Your task to perform on an android device: open app "Google Sheets" Image 0: 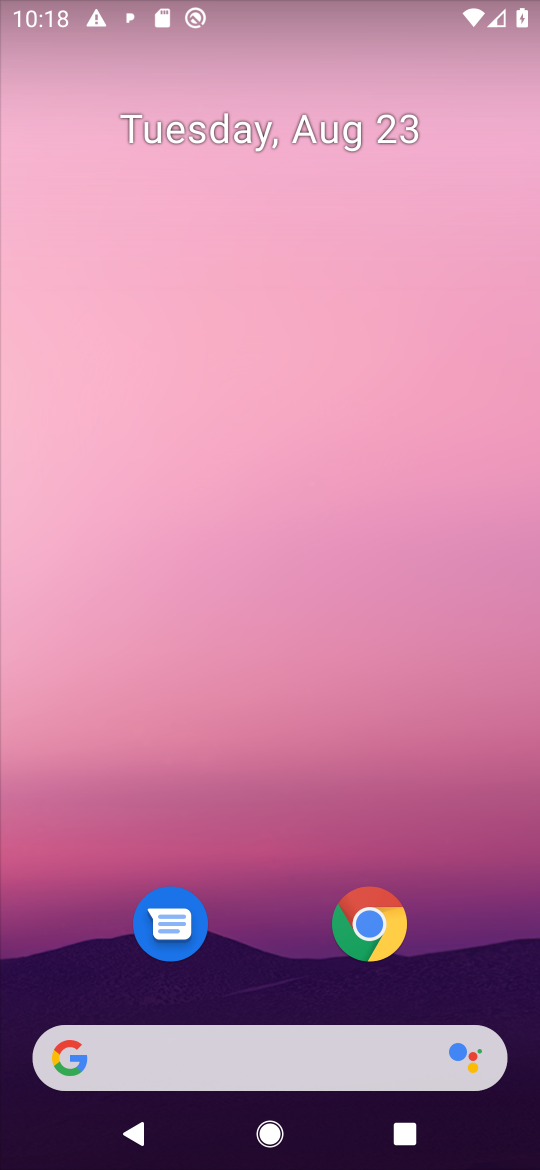
Step 0: press home button
Your task to perform on an android device: open app "Google Sheets" Image 1: 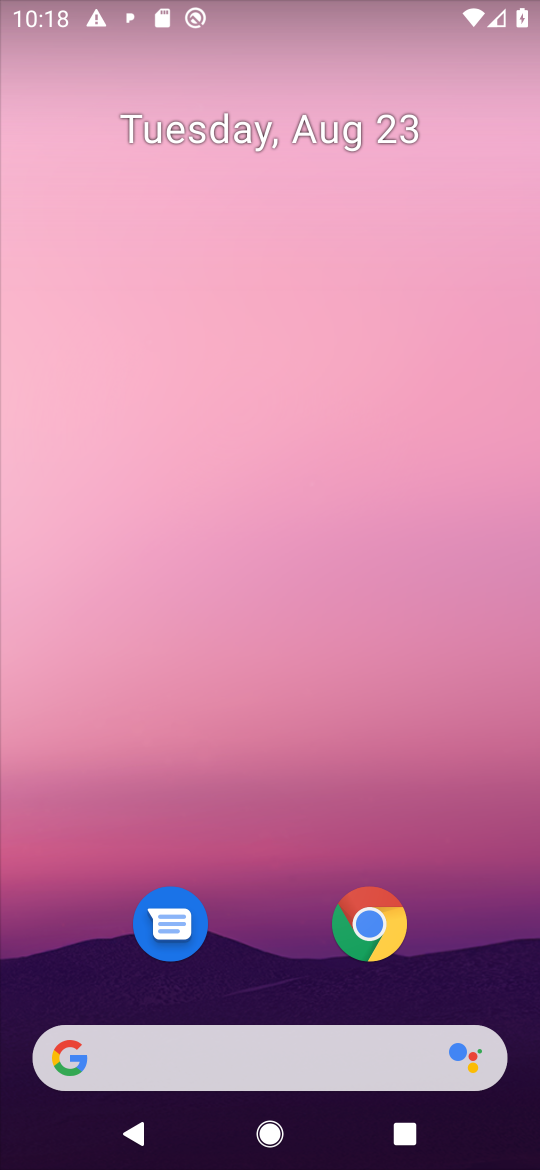
Step 1: drag from (502, 966) to (477, 120)
Your task to perform on an android device: open app "Google Sheets" Image 2: 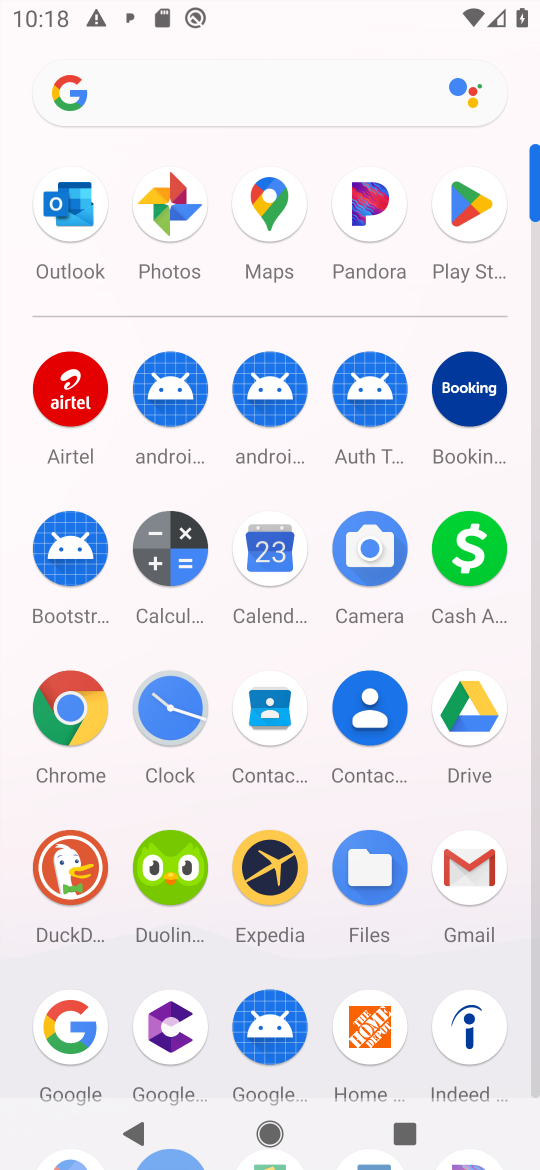
Step 2: click (471, 217)
Your task to perform on an android device: open app "Google Sheets" Image 3: 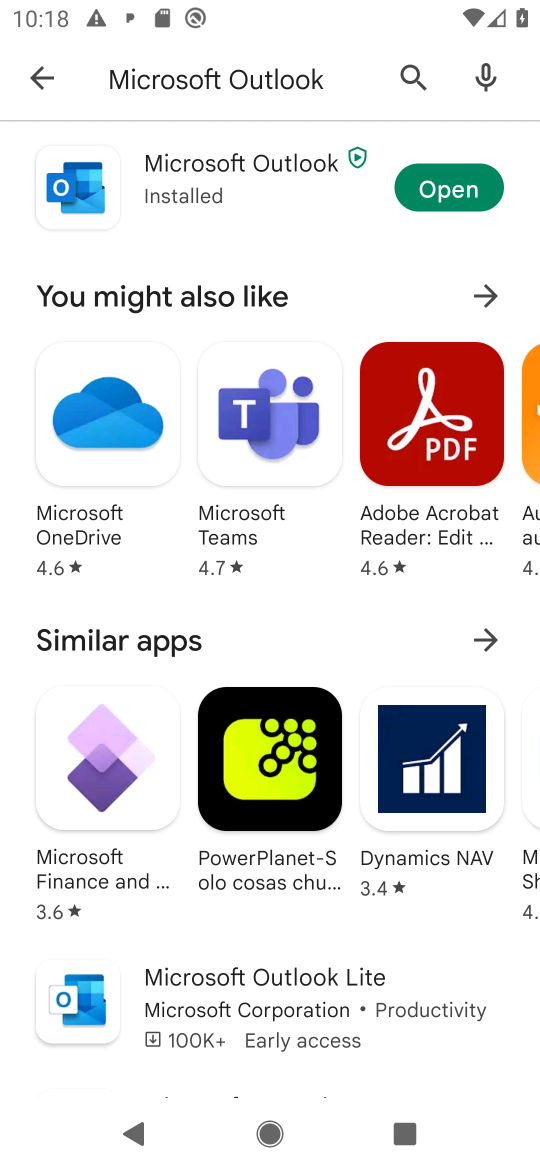
Step 3: press back button
Your task to perform on an android device: open app "Google Sheets" Image 4: 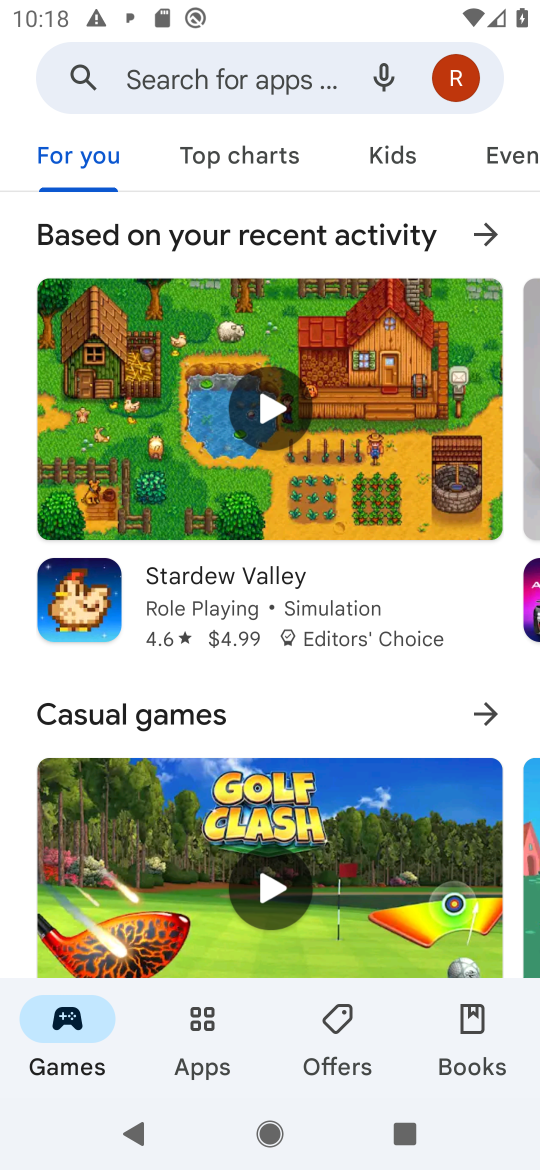
Step 4: click (300, 62)
Your task to perform on an android device: open app "Google Sheets" Image 5: 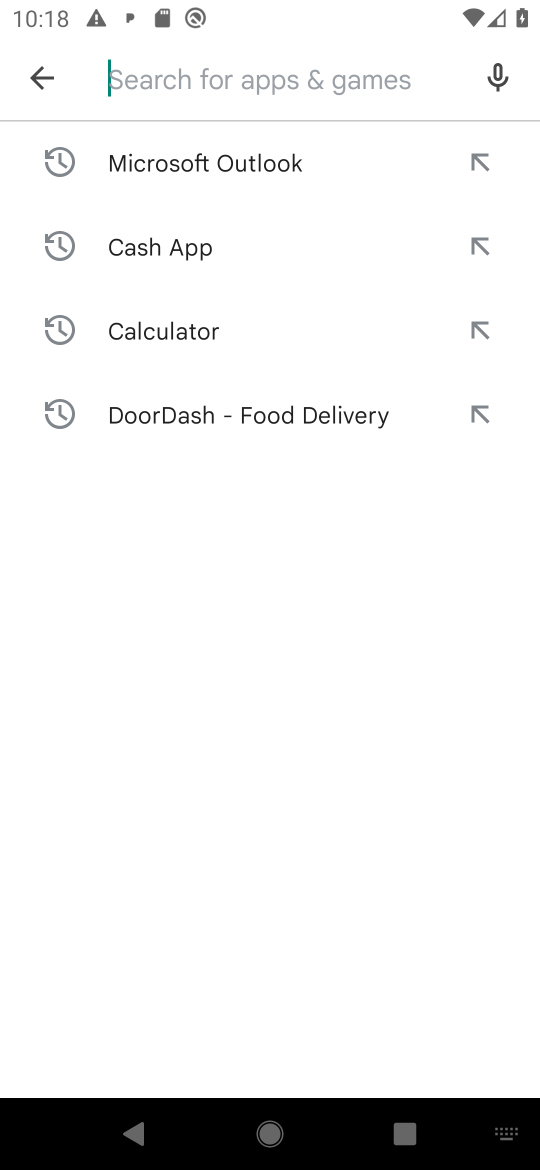
Step 5: type "Google Sheets"
Your task to perform on an android device: open app "Google Sheets" Image 6: 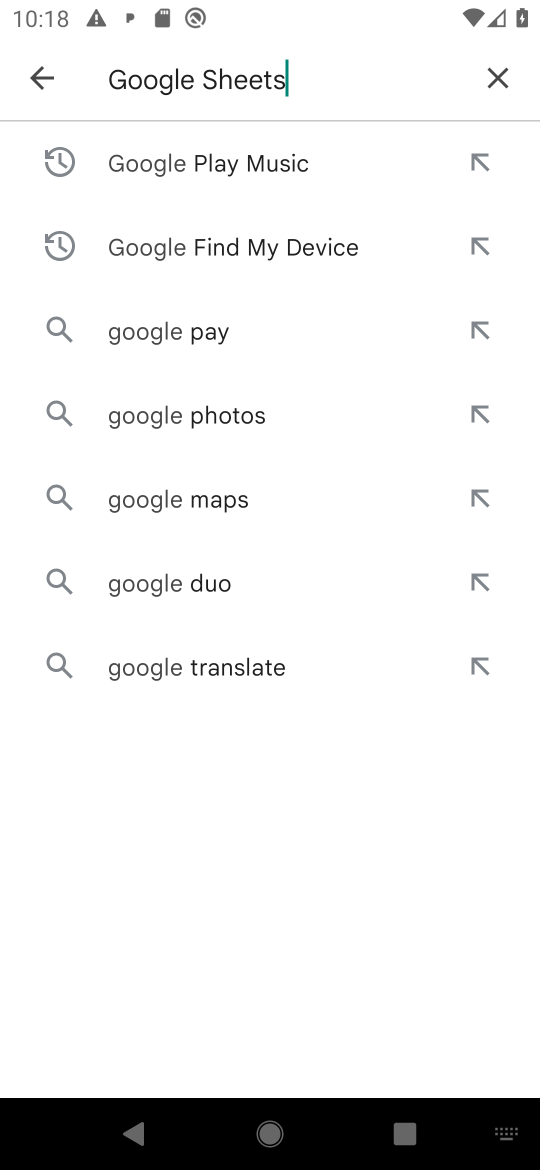
Step 6: press enter
Your task to perform on an android device: open app "Google Sheets" Image 7: 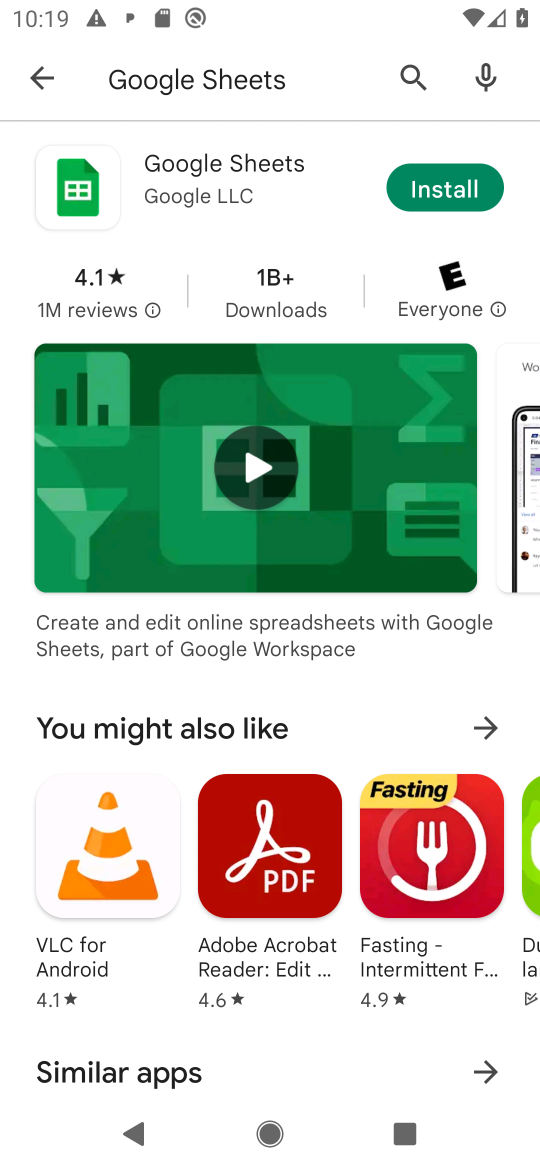
Step 7: task complete